Your task to perform on an android device: Is it going to rain tomorrow? Image 0: 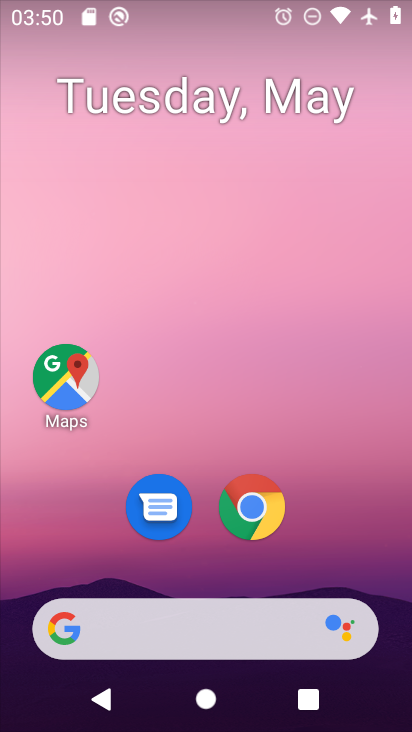
Step 0: drag from (225, 569) to (230, 501)
Your task to perform on an android device: Is it going to rain tomorrow? Image 1: 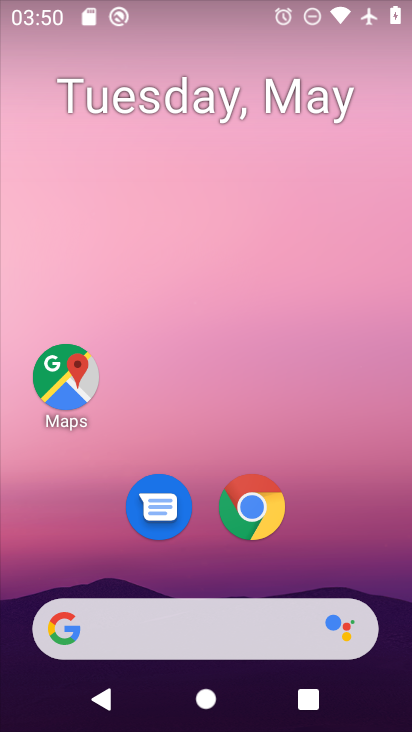
Step 1: drag from (208, 564) to (199, 257)
Your task to perform on an android device: Is it going to rain tomorrow? Image 2: 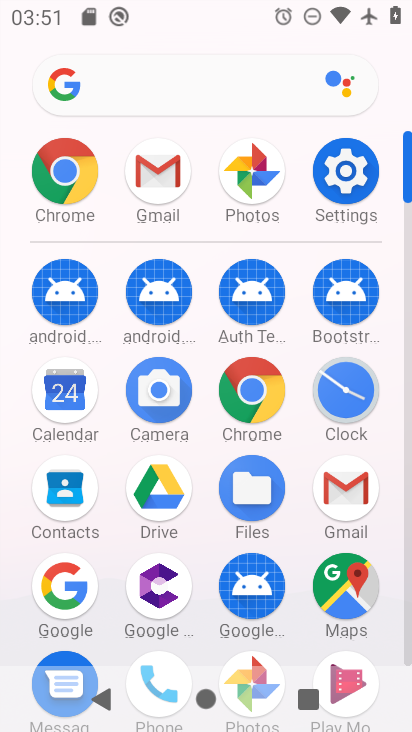
Step 2: click (62, 582)
Your task to perform on an android device: Is it going to rain tomorrow? Image 3: 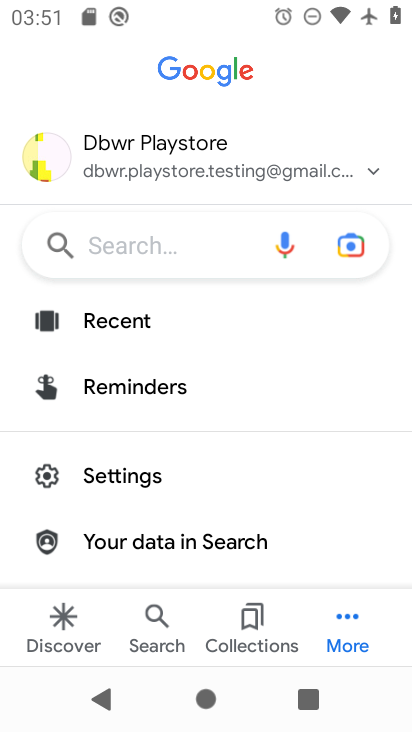
Step 3: press back button
Your task to perform on an android device: Is it going to rain tomorrow? Image 4: 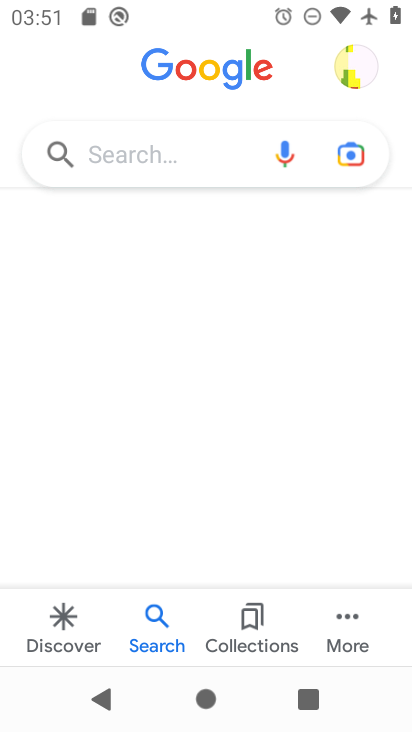
Step 4: click (181, 154)
Your task to perform on an android device: Is it going to rain tomorrow? Image 5: 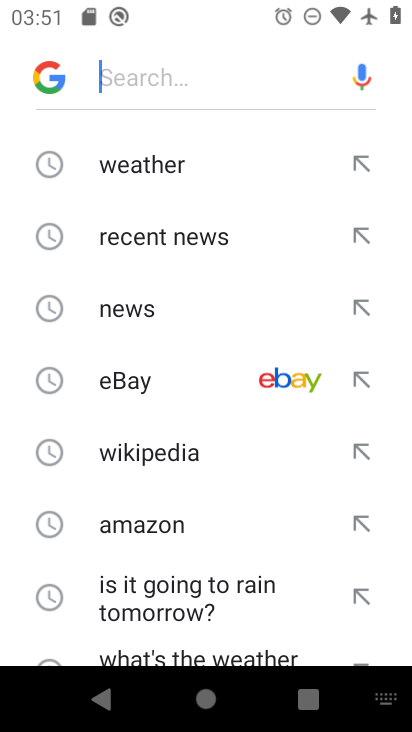
Step 5: click (181, 154)
Your task to perform on an android device: Is it going to rain tomorrow? Image 6: 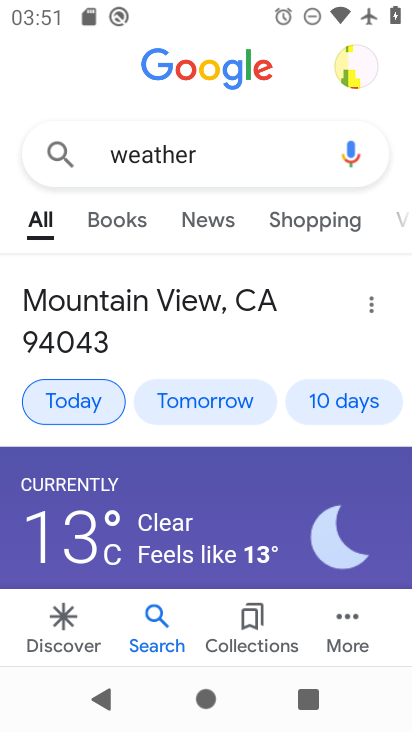
Step 6: click (205, 392)
Your task to perform on an android device: Is it going to rain tomorrow? Image 7: 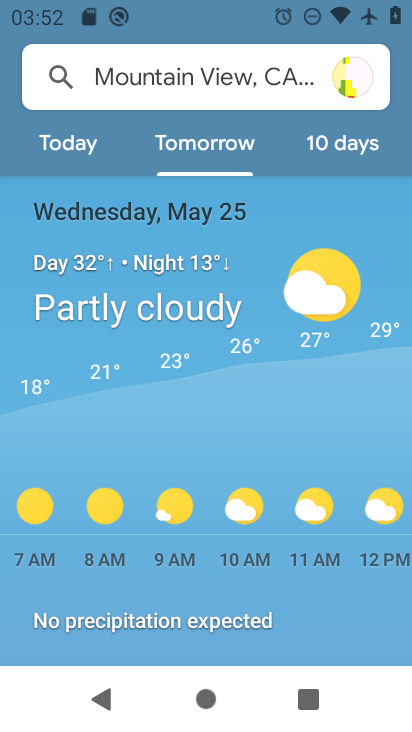
Step 7: task complete